Your task to perform on an android device: Do I have any events this weekend? Image 0: 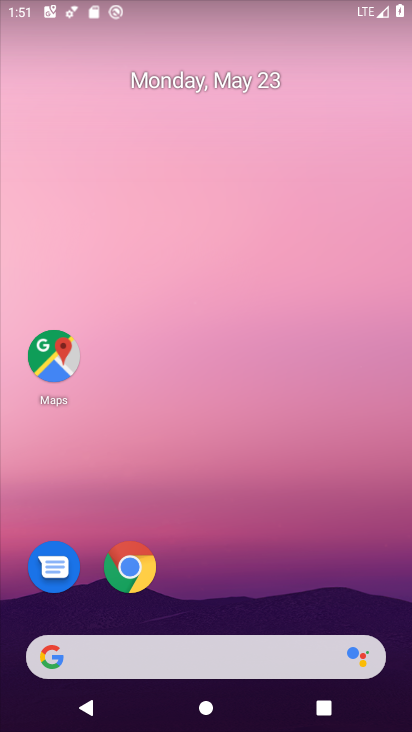
Step 0: drag from (292, 590) to (280, 148)
Your task to perform on an android device: Do I have any events this weekend? Image 1: 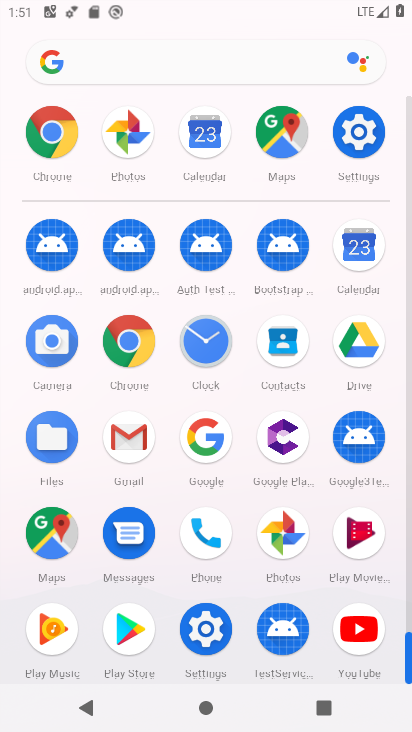
Step 1: click (347, 263)
Your task to perform on an android device: Do I have any events this weekend? Image 2: 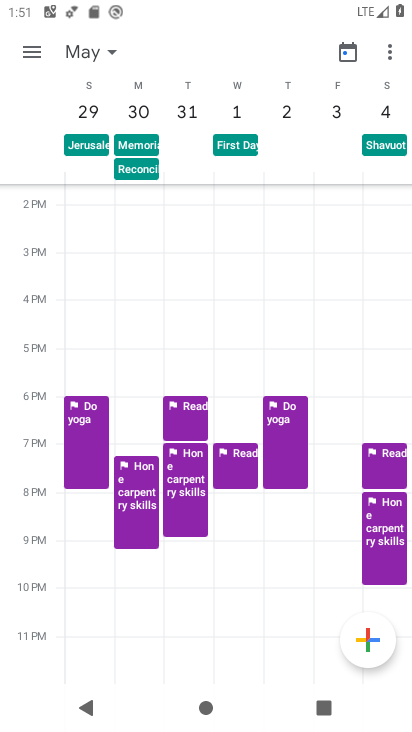
Step 2: click (24, 62)
Your task to perform on an android device: Do I have any events this weekend? Image 3: 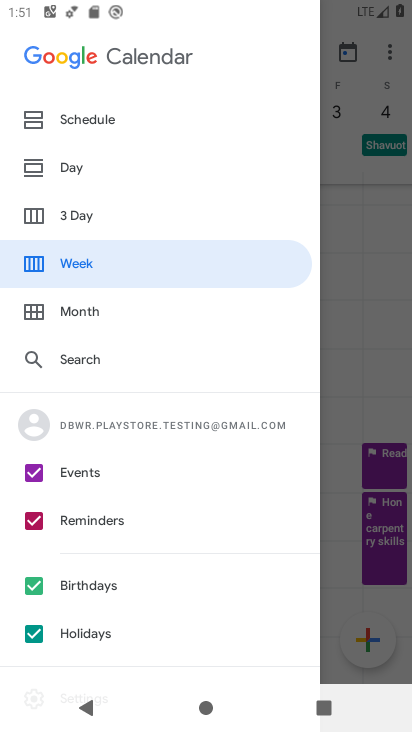
Step 3: click (351, 242)
Your task to perform on an android device: Do I have any events this weekend? Image 4: 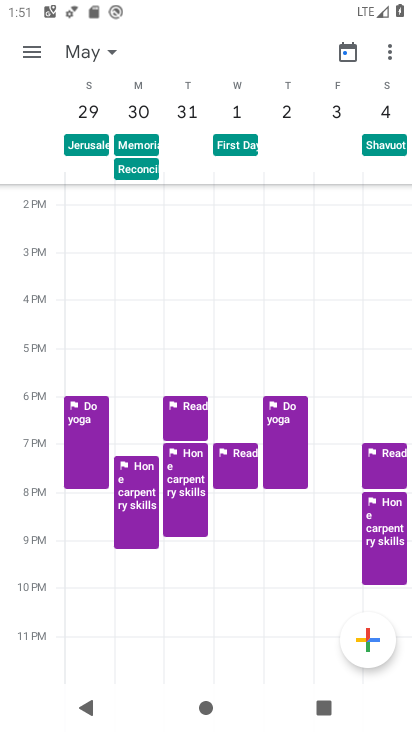
Step 4: click (110, 60)
Your task to perform on an android device: Do I have any events this weekend? Image 5: 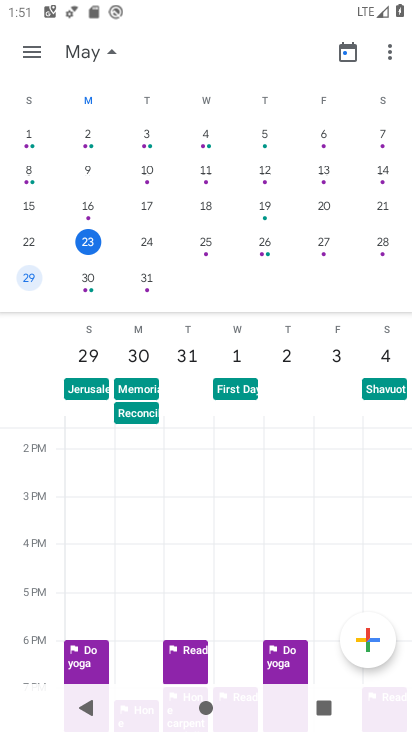
Step 5: drag from (100, 239) to (332, 263)
Your task to perform on an android device: Do I have any events this weekend? Image 6: 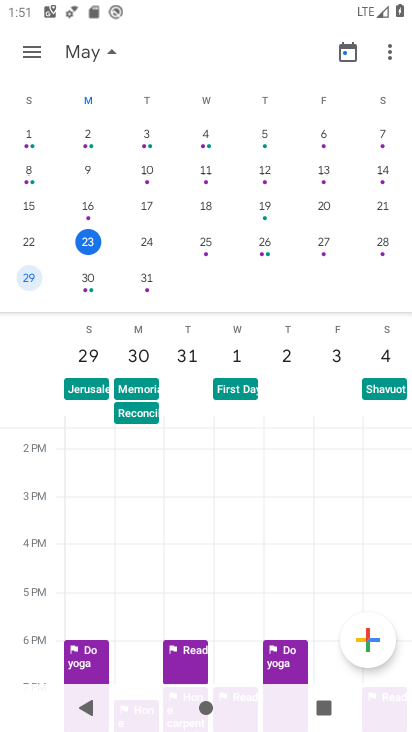
Step 6: click (98, 241)
Your task to perform on an android device: Do I have any events this weekend? Image 7: 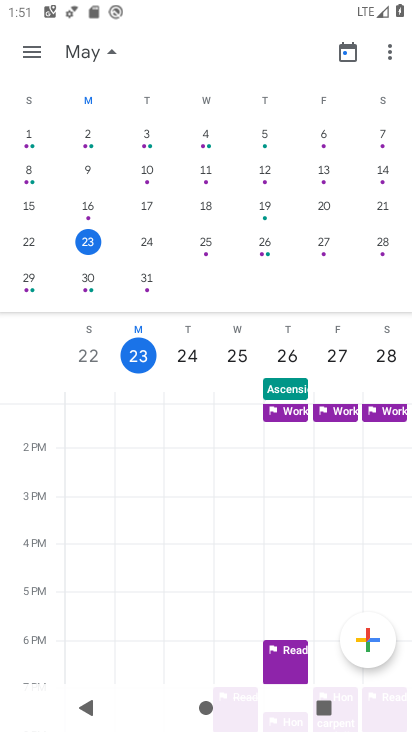
Step 7: click (98, 57)
Your task to perform on an android device: Do I have any events this weekend? Image 8: 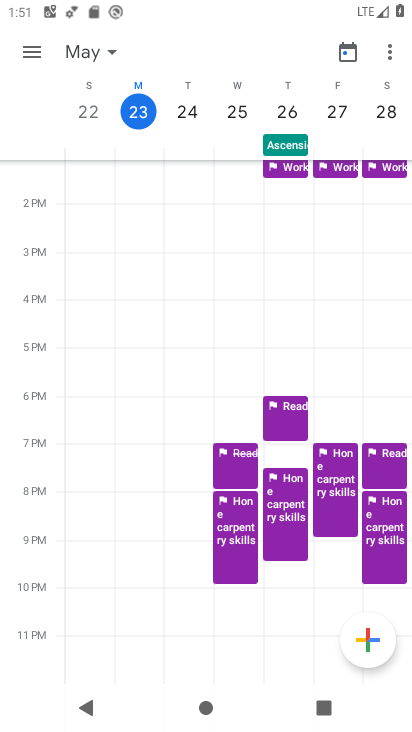
Step 8: drag from (165, 539) to (198, 196)
Your task to perform on an android device: Do I have any events this weekend? Image 9: 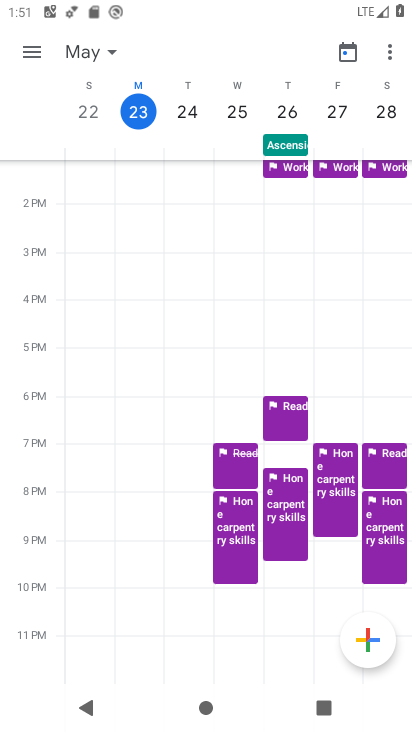
Step 9: drag from (259, 488) to (294, 264)
Your task to perform on an android device: Do I have any events this weekend? Image 10: 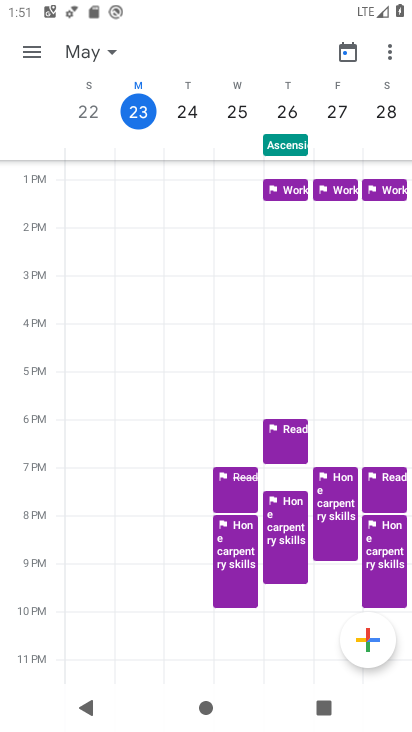
Step 10: click (399, 556)
Your task to perform on an android device: Do I have any events this weekend? Image 11: 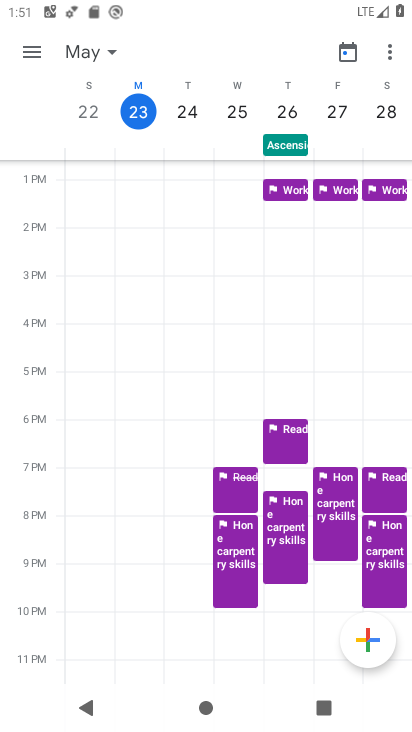
Step 11: task complete